Your task to perform on an android device: snooze an email in the gmail app Image 0: 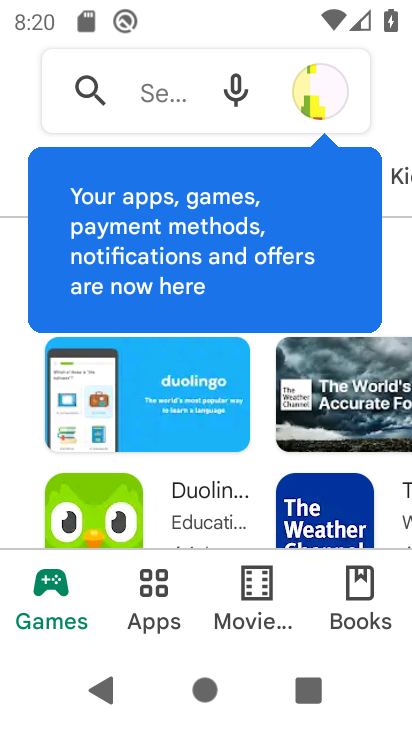
Step 0: press home button
Your task to perform on an android device: snooze an email in the gmail app Image 1: 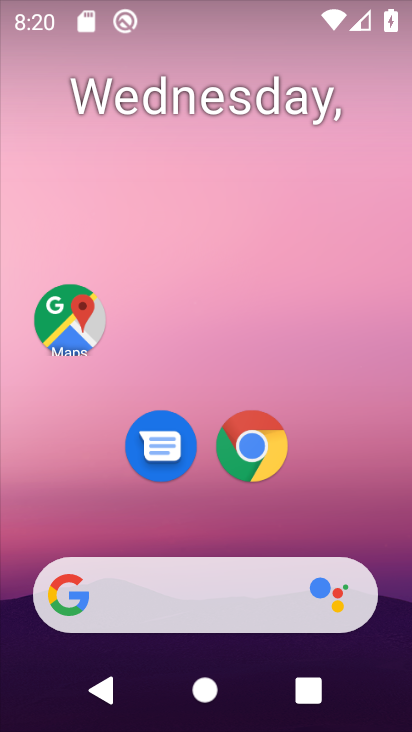
Step 1: drag from (206, 549) to (171, 193)
Your task to perform on an android device: snooze an email in the gmail app Image 2: 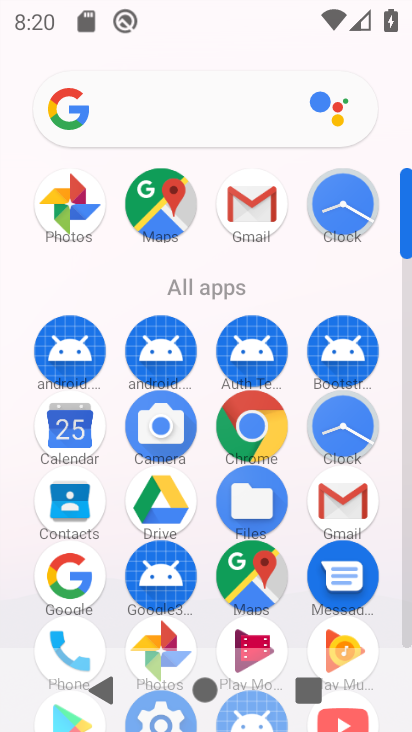
Step 2: click (266, 215)
Your task to perform on an android device: snooze an email in the gmail app Image 3: 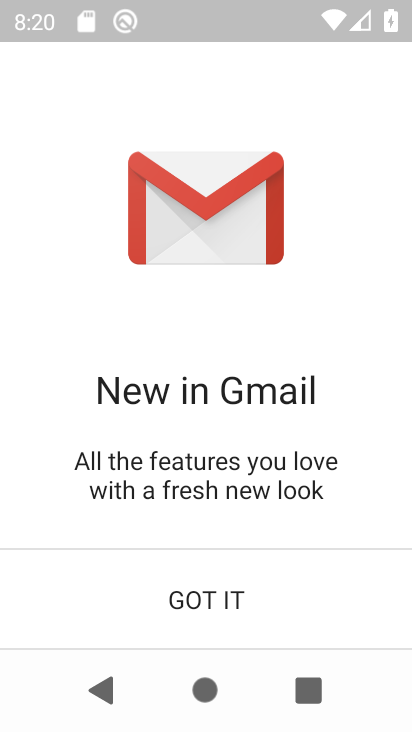
Step 3: click (217, 632)
Your task to perform on an android device: snooze an email in the gmail app Image 4: 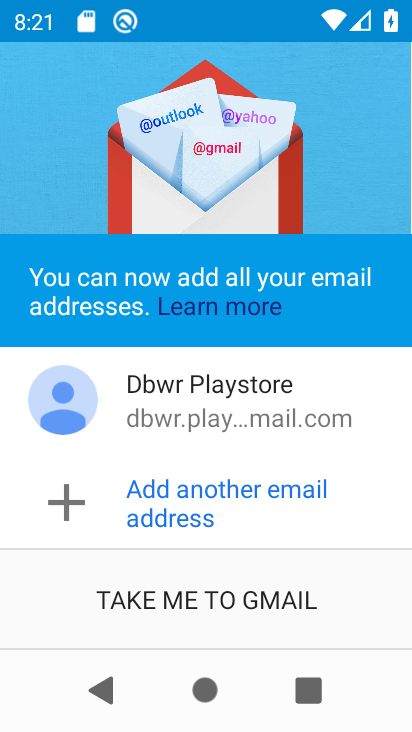
Step 4: click (192, 573)
Your task to perform on an android device: snooze an email in the gmail app Image 5: 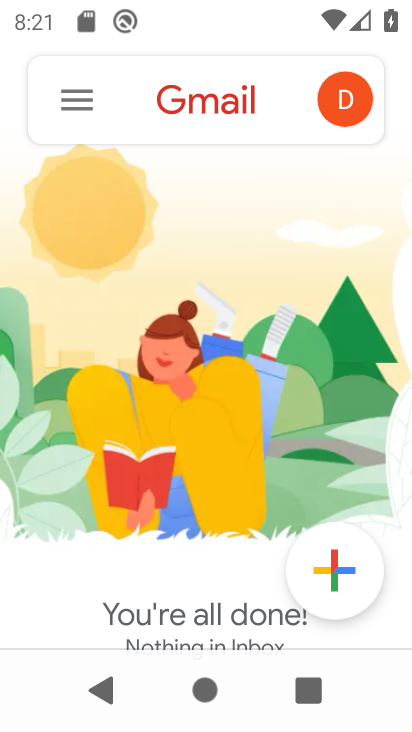
Step 5: click (67, 103)
Your task to perform on an android device: snooze an email in the gmail app Image 6: 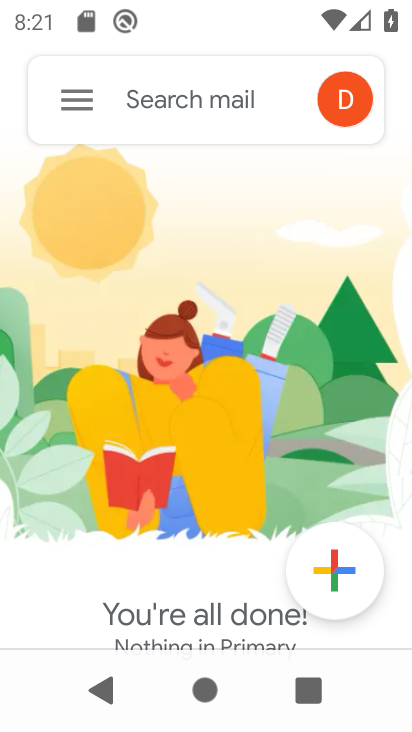
Step 6: click (64, 115)
Your task to perform on an android device: snooze an email in the gmail app Image 7: 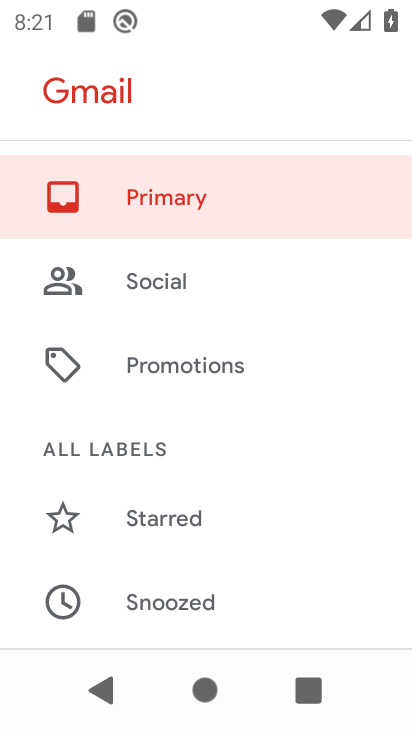
Step 7: drag from (153, 511) to (157, 175)
Your task to perform on an android device: snooze an email in the gmail app Image 8: 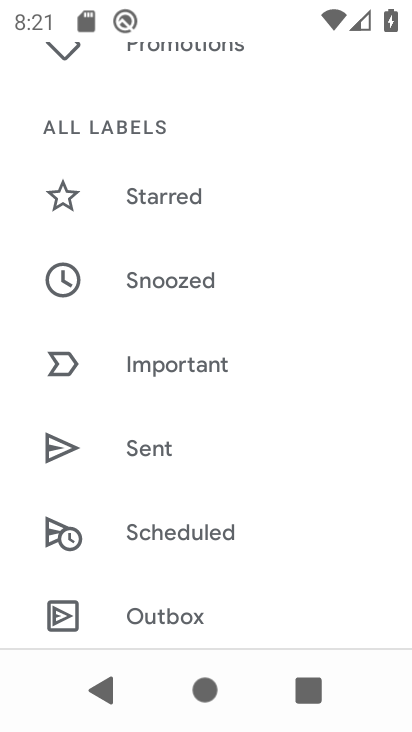
Step 8: drag from (230, 560) to (225, 266)
Your task to perform on an android device: snooze an email in the gmail app Image 9: 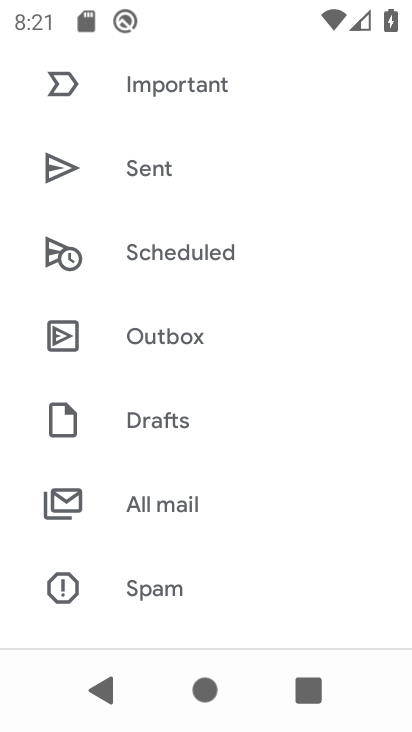
Step 9: click (146, 494)
Your task to perform on an android device: snooze an email in the gmail app Image 10: 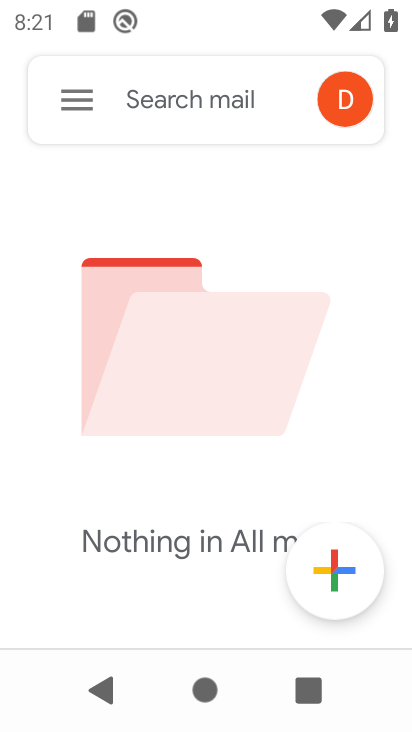
Step 10: task complete